Your task to perform on an android device: toggle notification dots Image 0: 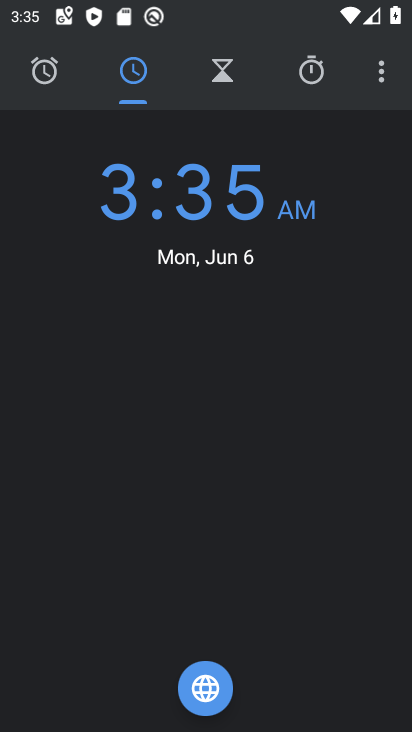
Step 0: press home button
Your task to perform on an android device: toggle notification dots Image 1: 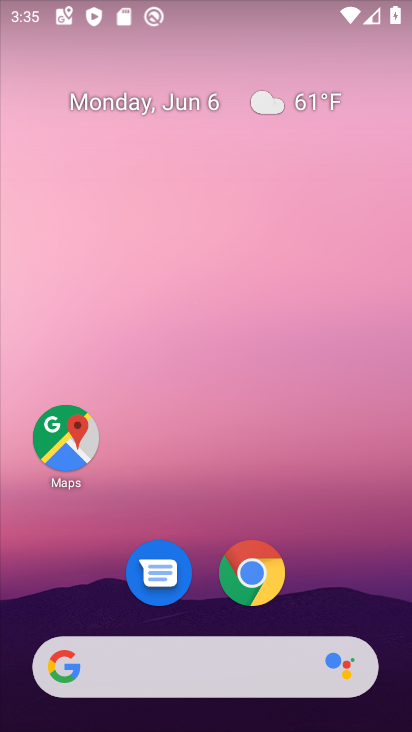
Step 1: drag from (216, 643) to (188, 163)
Your task to perform on an android device: toggle notification dots Image 2: 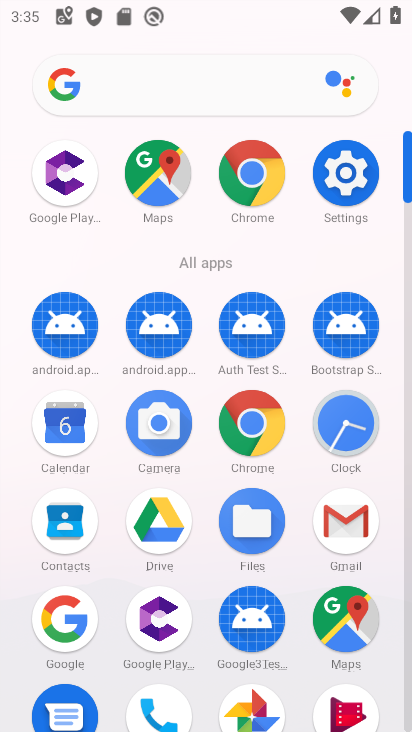
Step 2: click (339, 180)
Your task to perform on an android device: toggle notification dots Image 3: 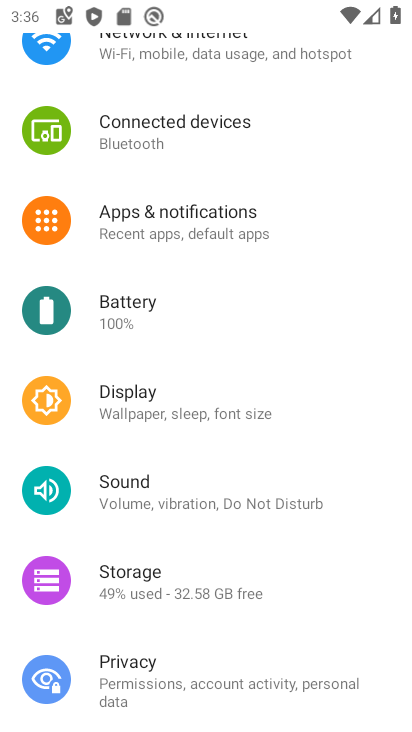
Step 3: click (169, 220)
Your task to perform on an android device: toggle notification dots Image 4: 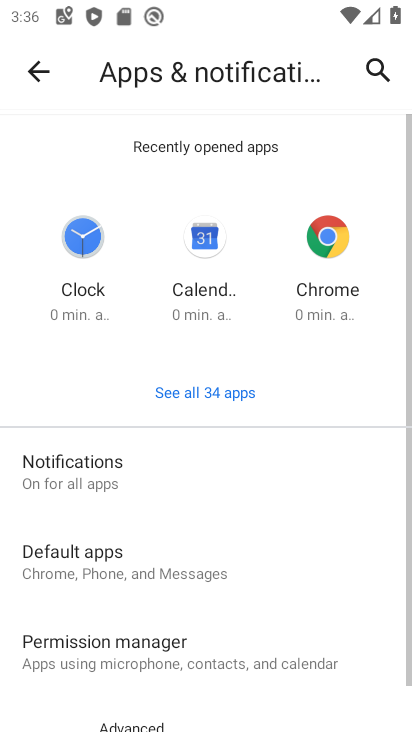
Step 4: click (103, 467)
Your task to perform on an android device: toggle notification dots Image 5: 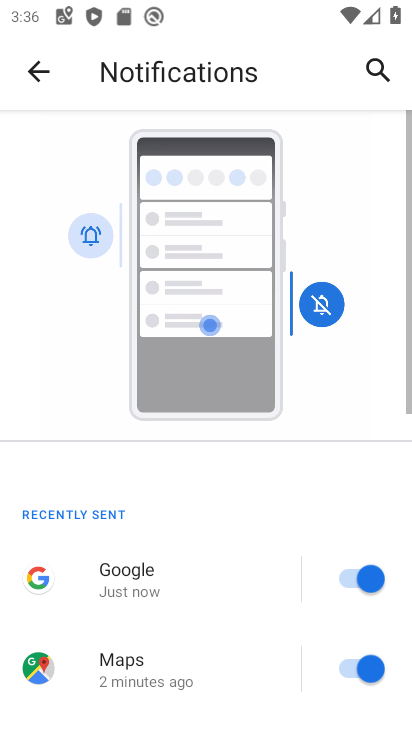
Step 5: drag from (156, 667) to (143, 228)
Your task to perform on an android device: toggle notification dots Image 6: 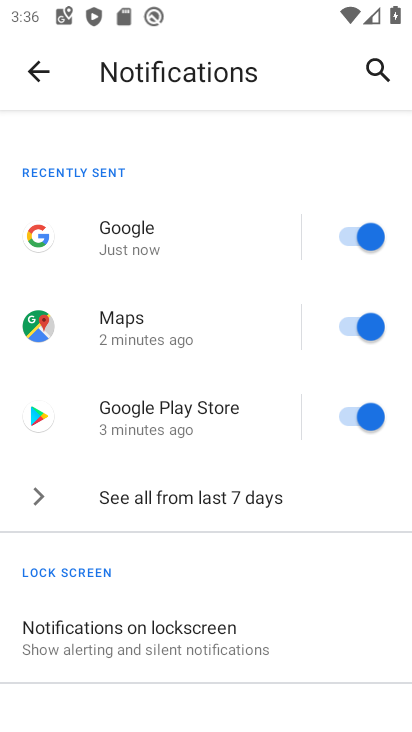
Step 6: drag from (145, 672) to (96, 254)
Your task to perform on an android device: toggle notification dots Image 7: 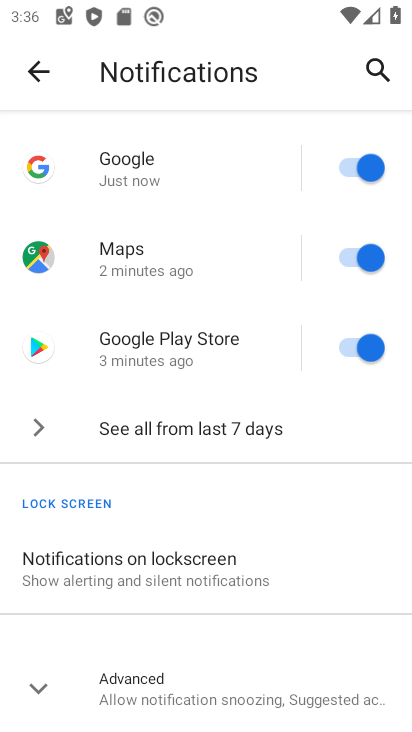
Step 7: click (169, 702)
Your task to perform on an android device: toggle notification dots Image 8: 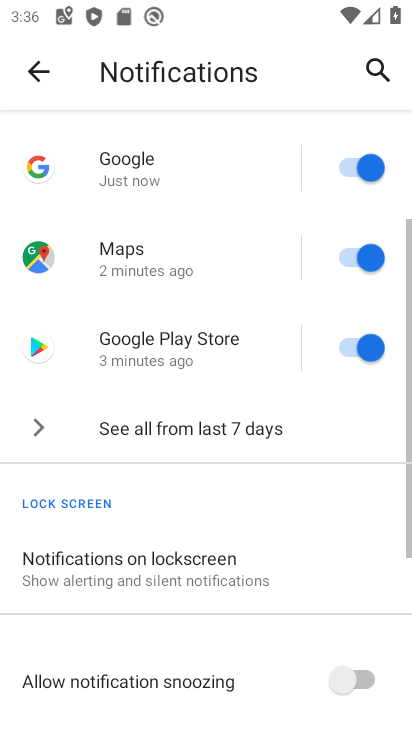
Step 8: drag from (169, 702) to (158, 248)
Your task to perform on an android device: toggle notification dots Image 9: 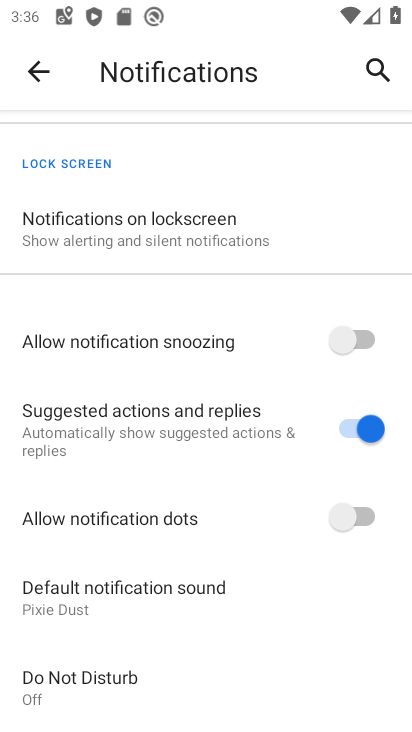
Step 9: click (356, 518)
Your task to perform on an android device: toggle notification dots Image 10: 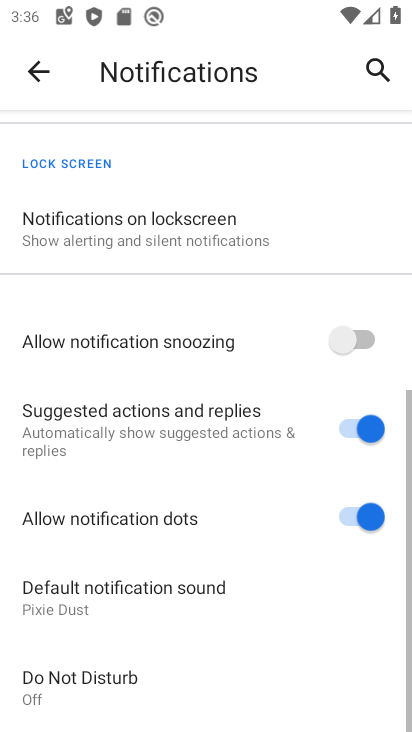
Step 10: task complete